Your task to perform on an android device: add a contact in the contacts app Image 0: 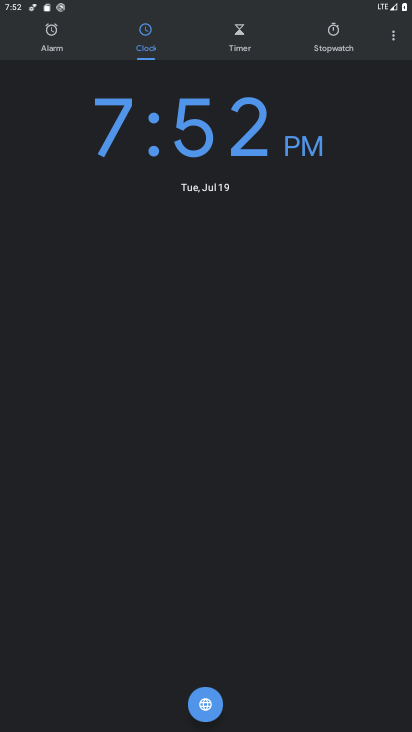
Step 0: press home button
Your task to perform on an android device: add a contact in the contacts app Image 1: 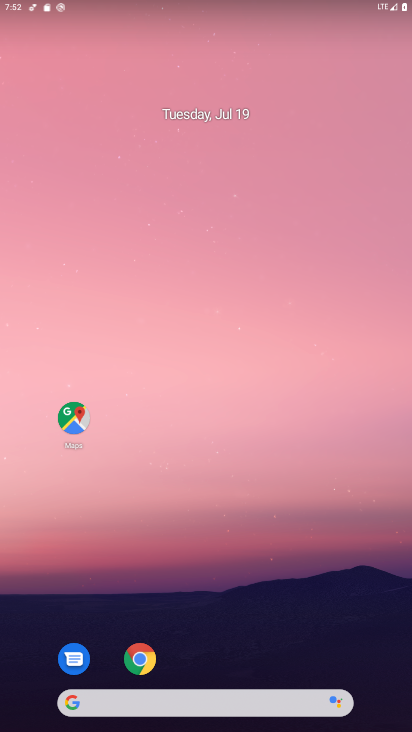
Step 1: drag from (177, 606) to (238, 2)
Your task to perform on an android device: add a contact in the contacts app Image 2: 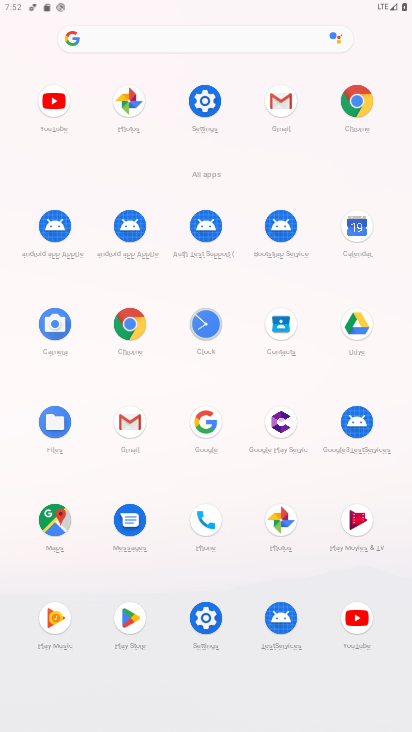
Step 2: click (285, 328)
Your task to perform on an android device: add a contact in the contacts app Image 3: 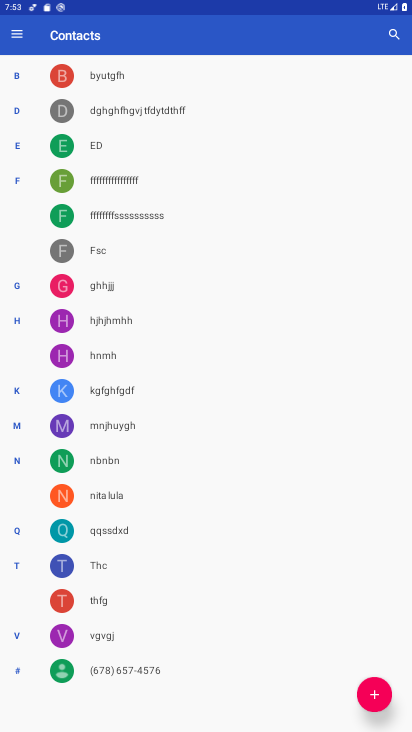
Step 3: click (375, 694)
Your task to perform on an android device: add a contact in the contacts app Image 4: 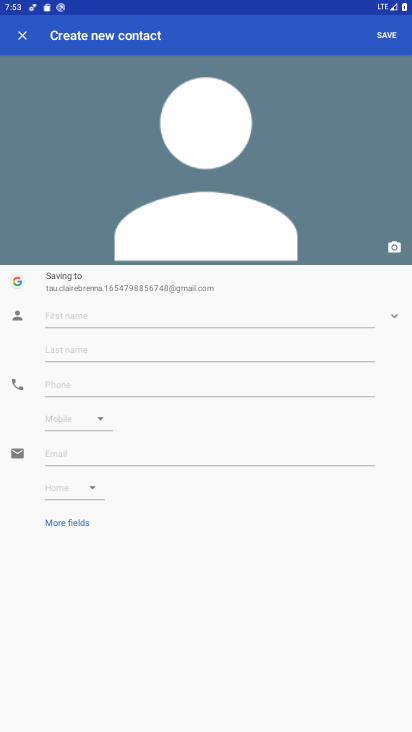
Step 4: click (94, 317)
Your task to perform on an android device: add a contact in the contacts app Image 5: 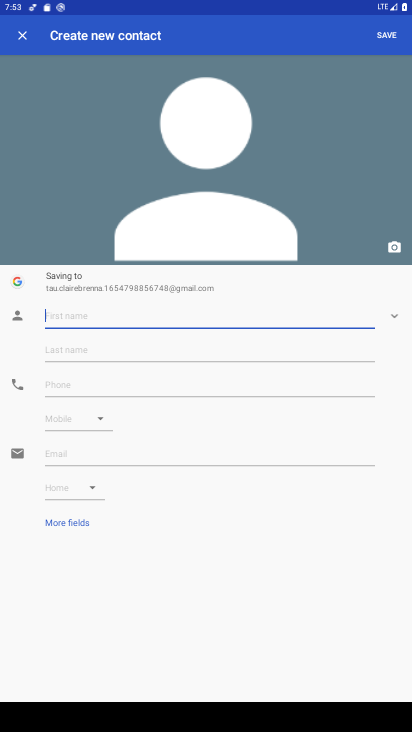
Step 5: type "wills"
Your task to perform on an android device: add a contact in the contacts app Image 6: 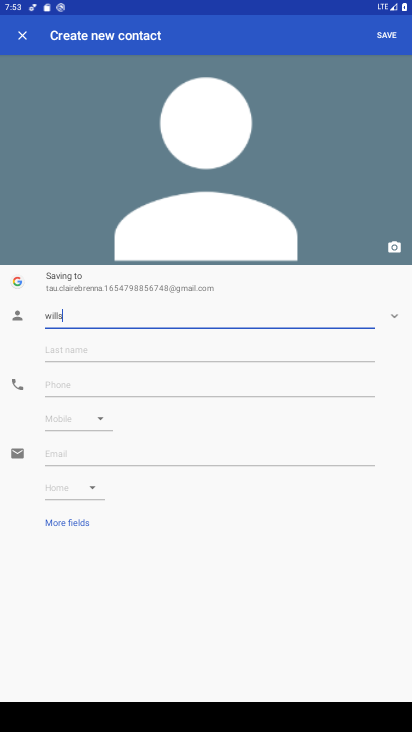
Step 6: click (378, 34)
Your task to perform on an android device: add a contact in the contacts app Image 7: 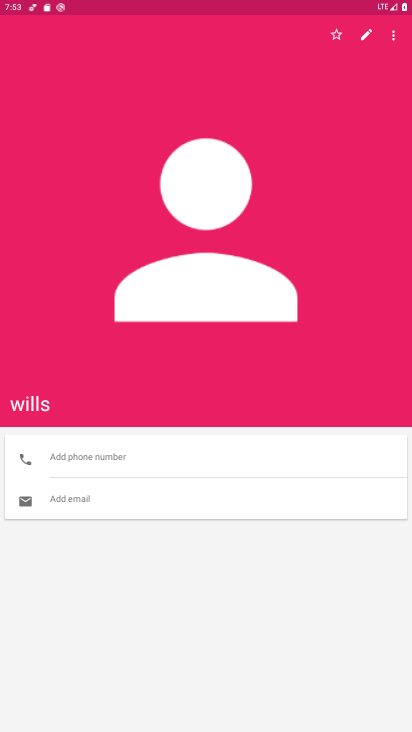
Step 7: task complete